Your task to perform on an android device: How big is the universe? Image 0: 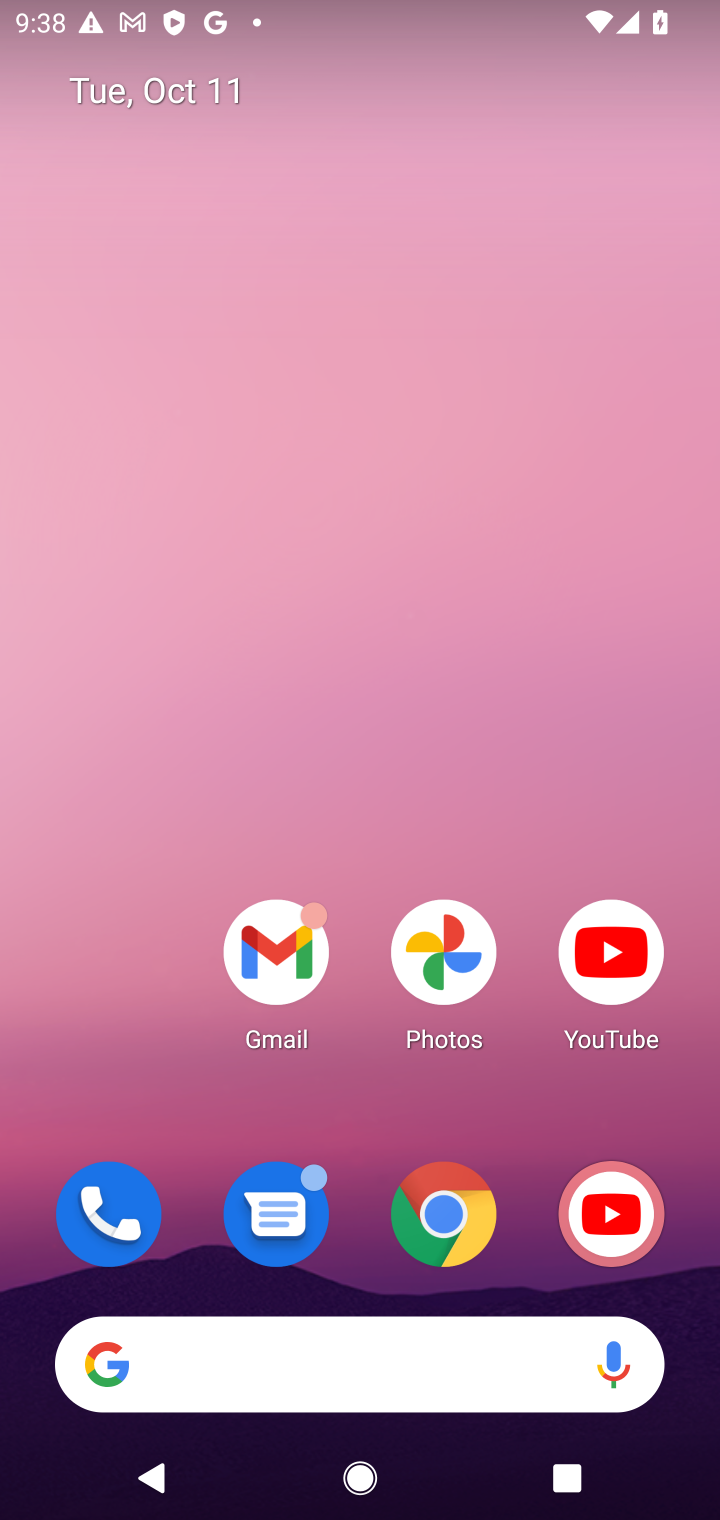
Step 0: drag from (384, 972) to (295, 5)
Your task to perform on an android device: How big is the universe? Image 1: 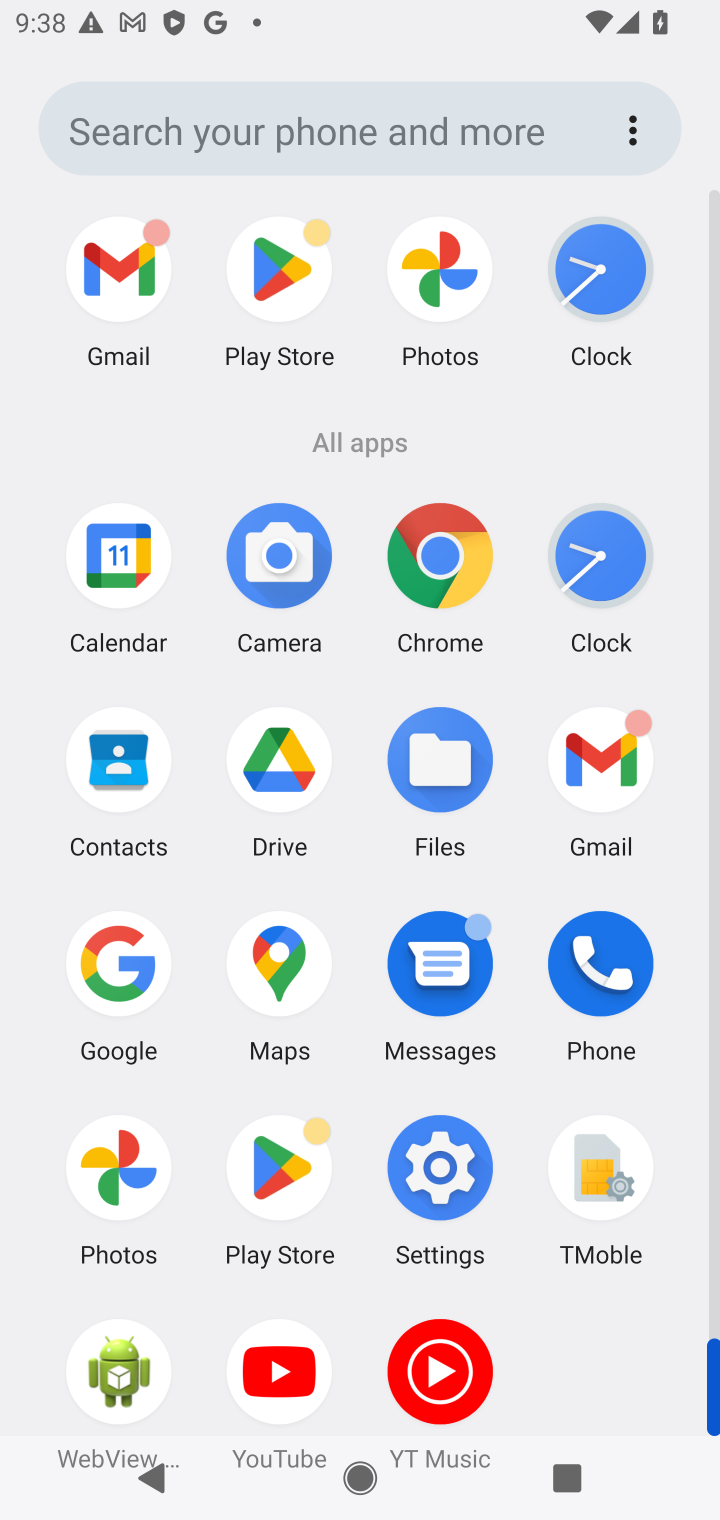
Step 1: click (423, 571)
Your task to perform on an android device: How big is the universe? Image 2: 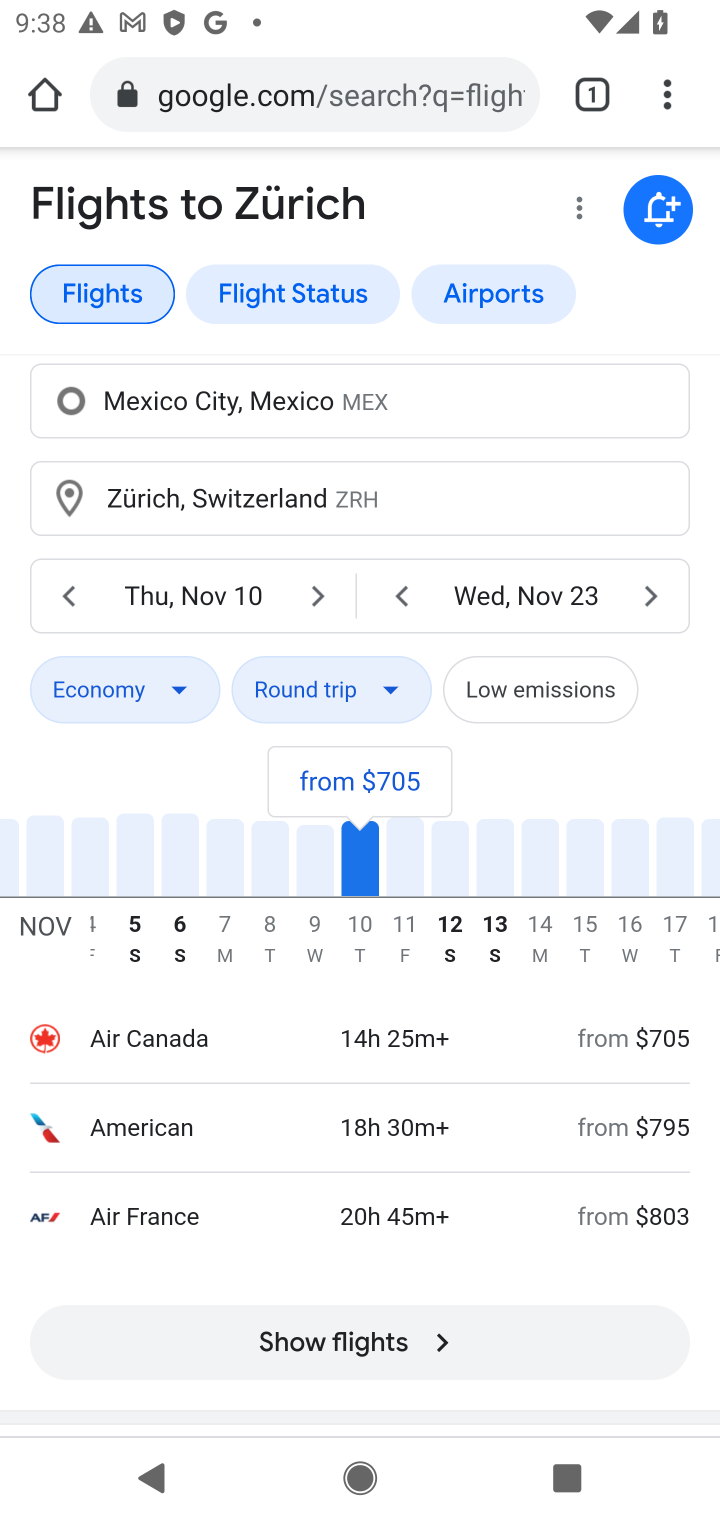
Step 2: click (402, 125)
Your task to perform on an android device: How big is the universe? Image 3: 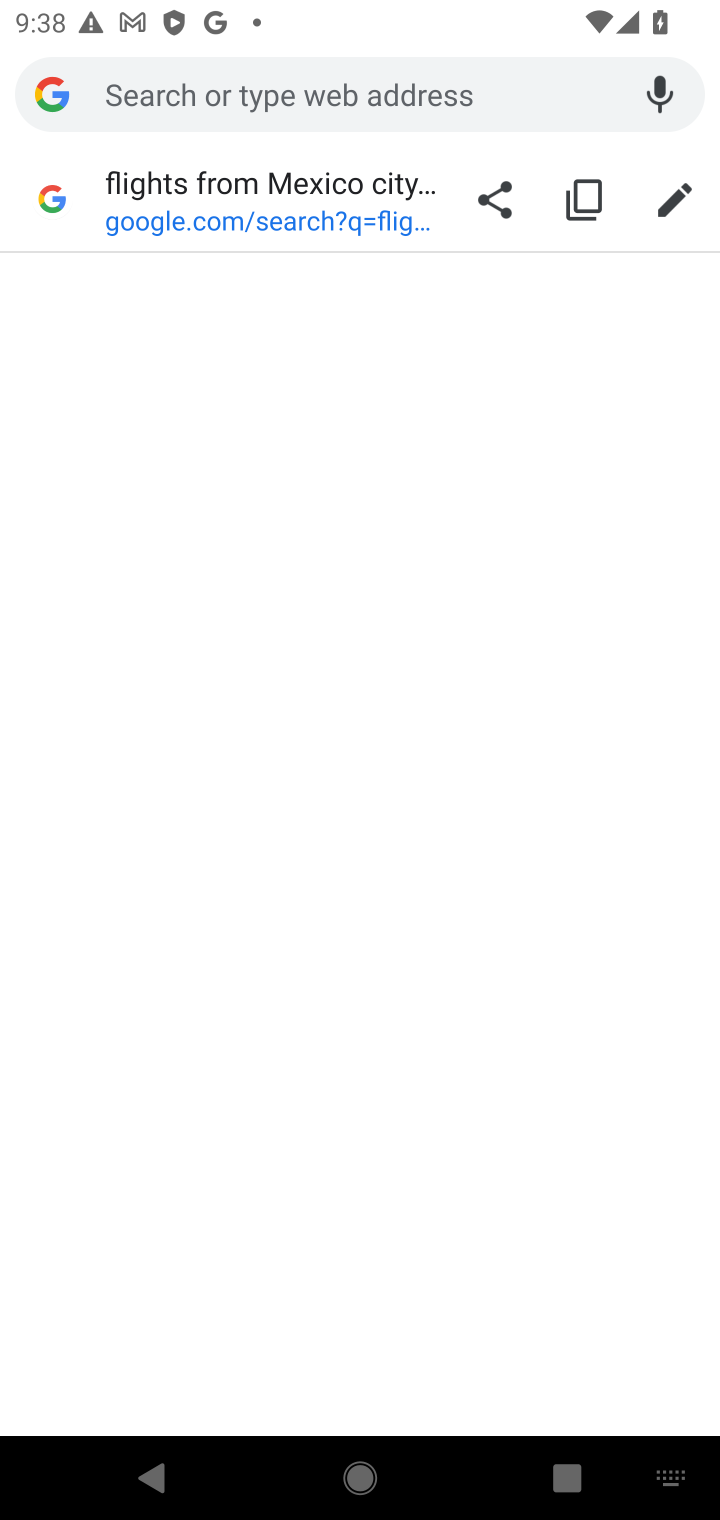
Step 3: type "how big is the  universe"
Your task to perform on an android device: How big is the universe? Image 4: 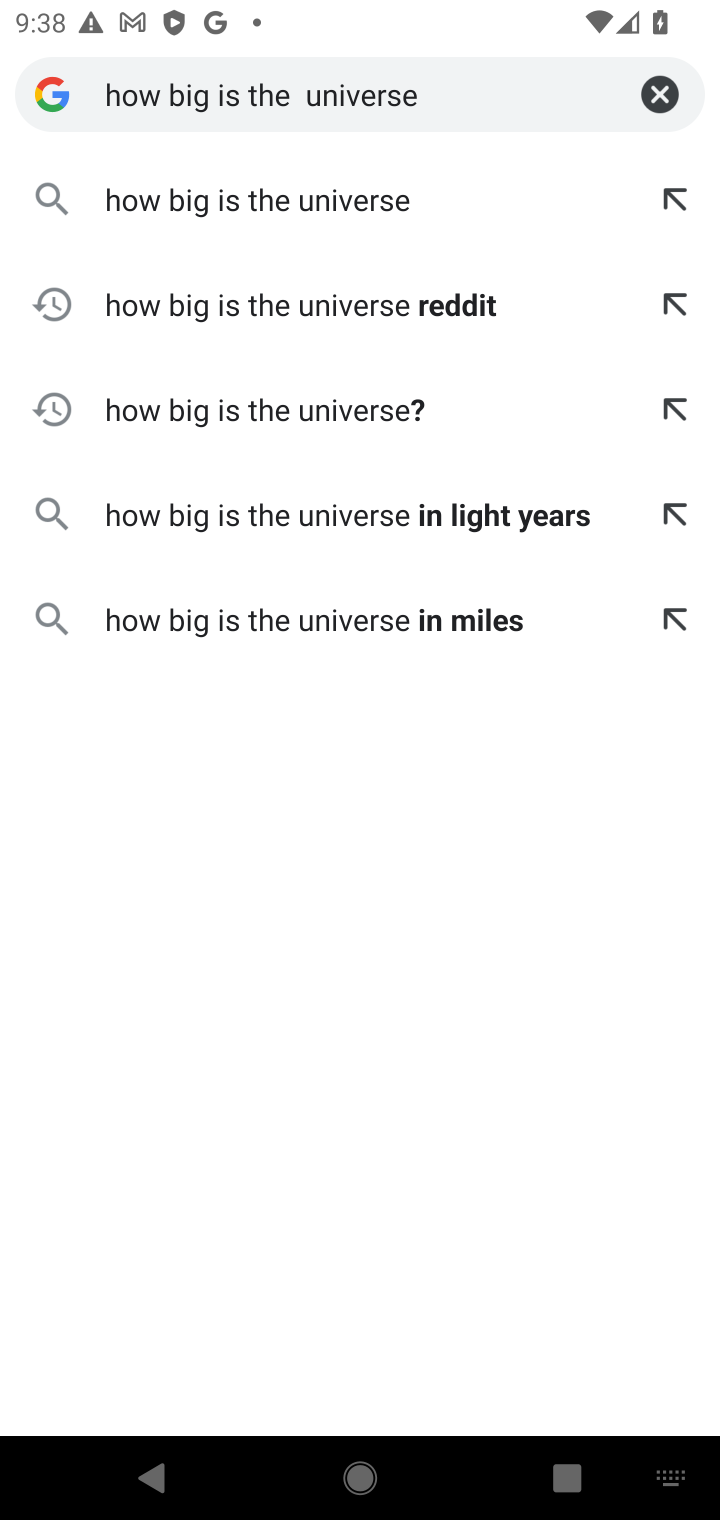
Step 4: press enter
Your task to perform on an android device: How big is the universe? Image 5: 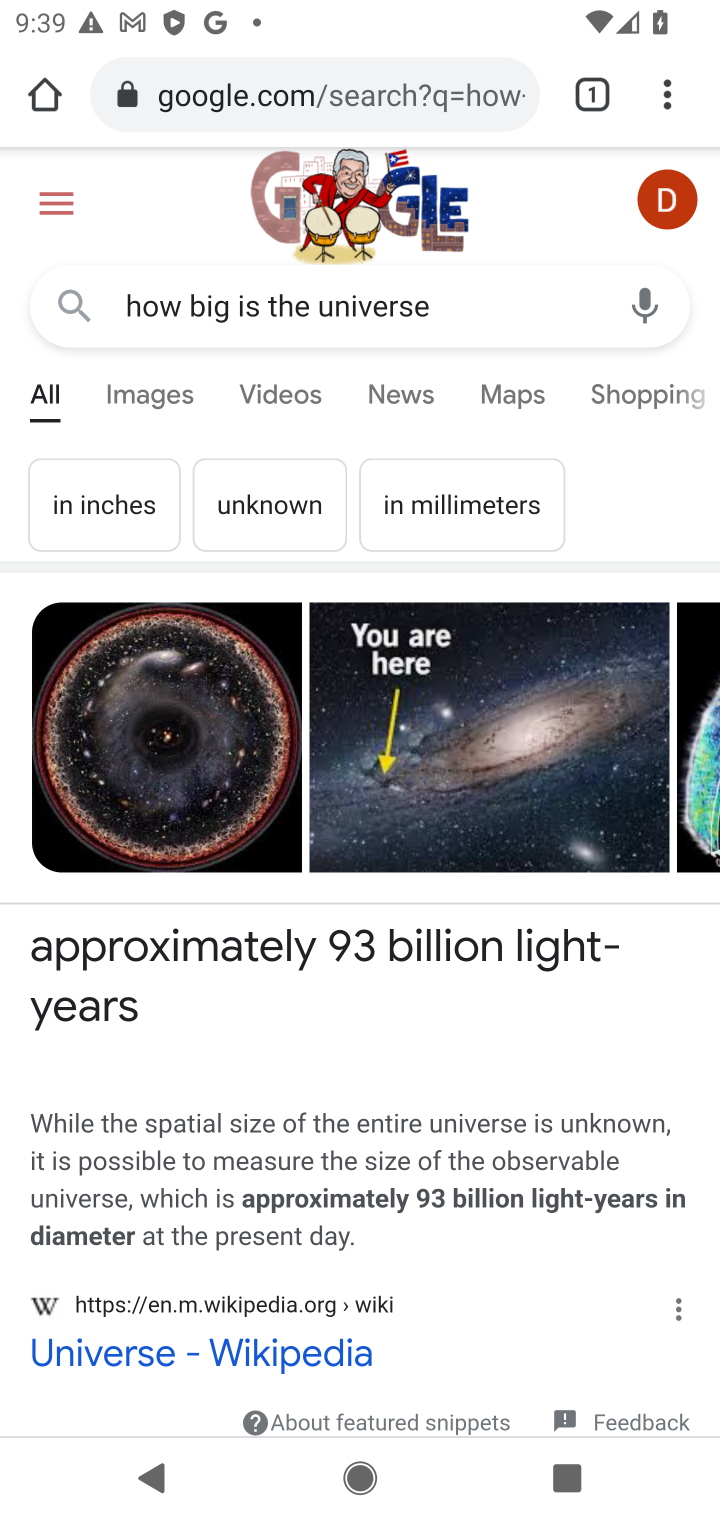
Step 5: task complete